Your task to perform on an android device: delete a single message in the gmail app Image 0: 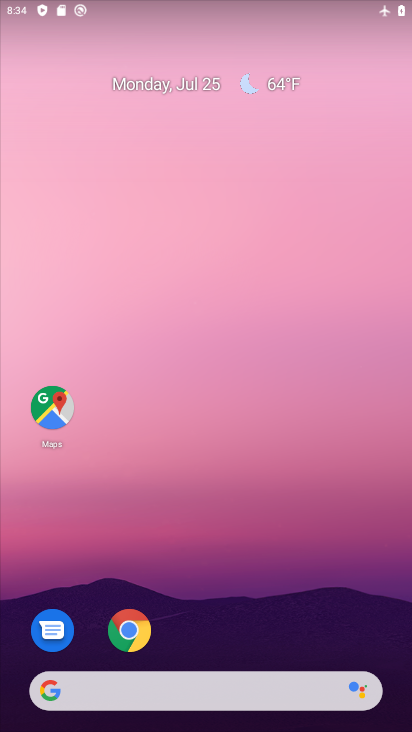
Step 0: drag from (391, 629) to (313, 211)
Your task to perform on an android device: delete a single message in the gmail app Image 1: 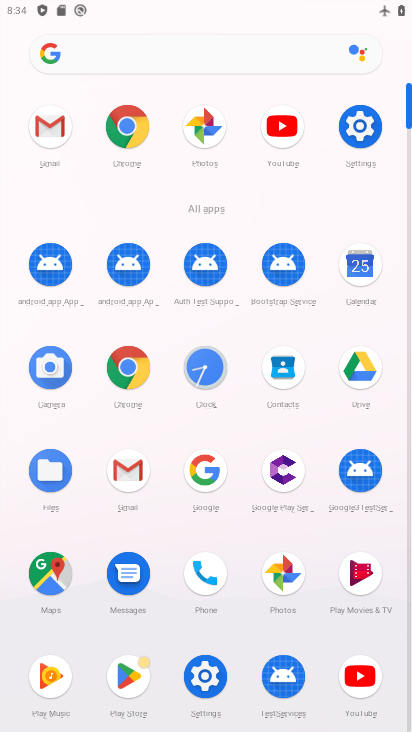
Step 1: click (129, 472)
Your task to perform on an android device: delete a single message in the gmail app Image 2: 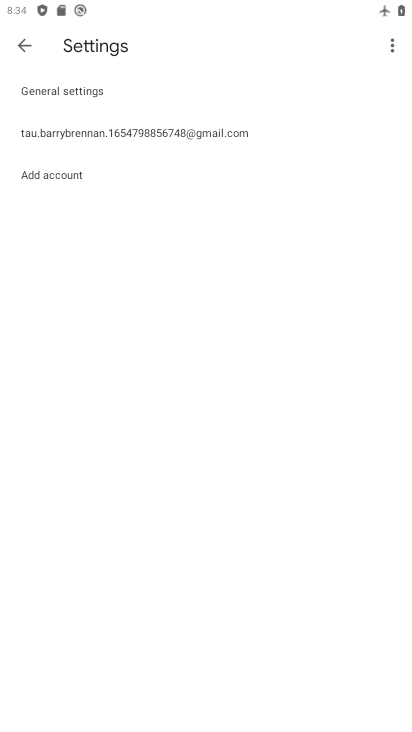
Step 2: press back button
Your task to perform on an android device: delete a single message in the gmail app Image 3: 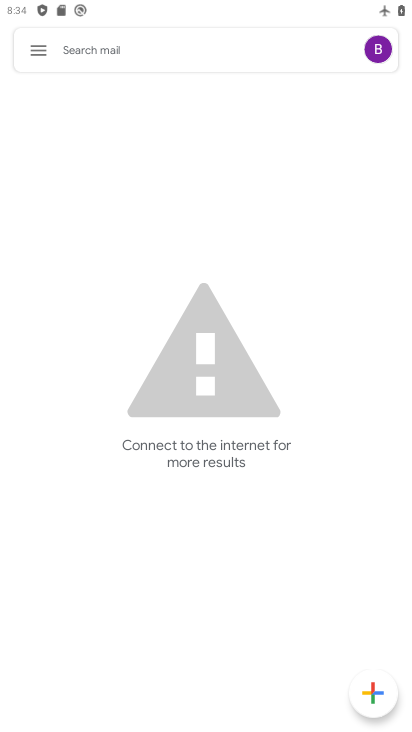
Step 3: click (34, 53)
Your task to perform on an android device: delete a single message in the gmail app Image 4: 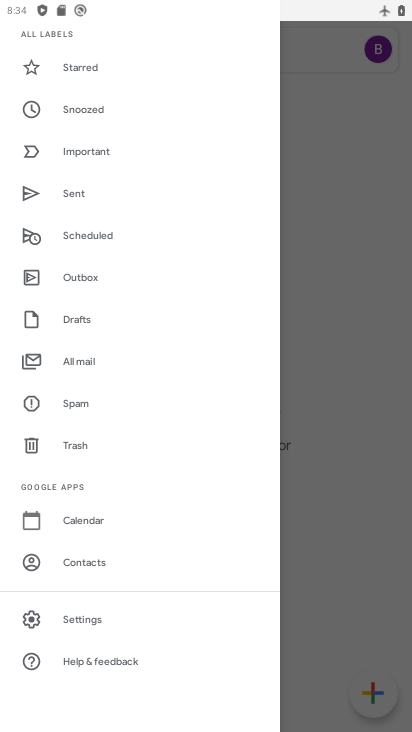
Step 4: click (80, 362)
Your task to perform on an android device: delete a single message in the gmail app Image 5: 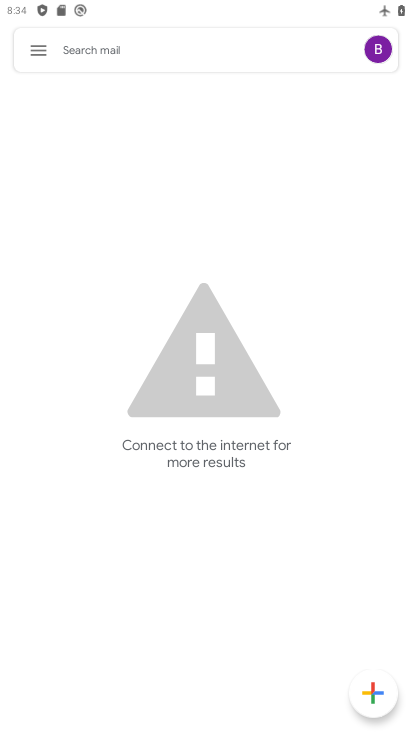
Step 5: task complete